Your task to perform on an android device: Add "razer blackwidow" to the cart on newegg.com Image 0: 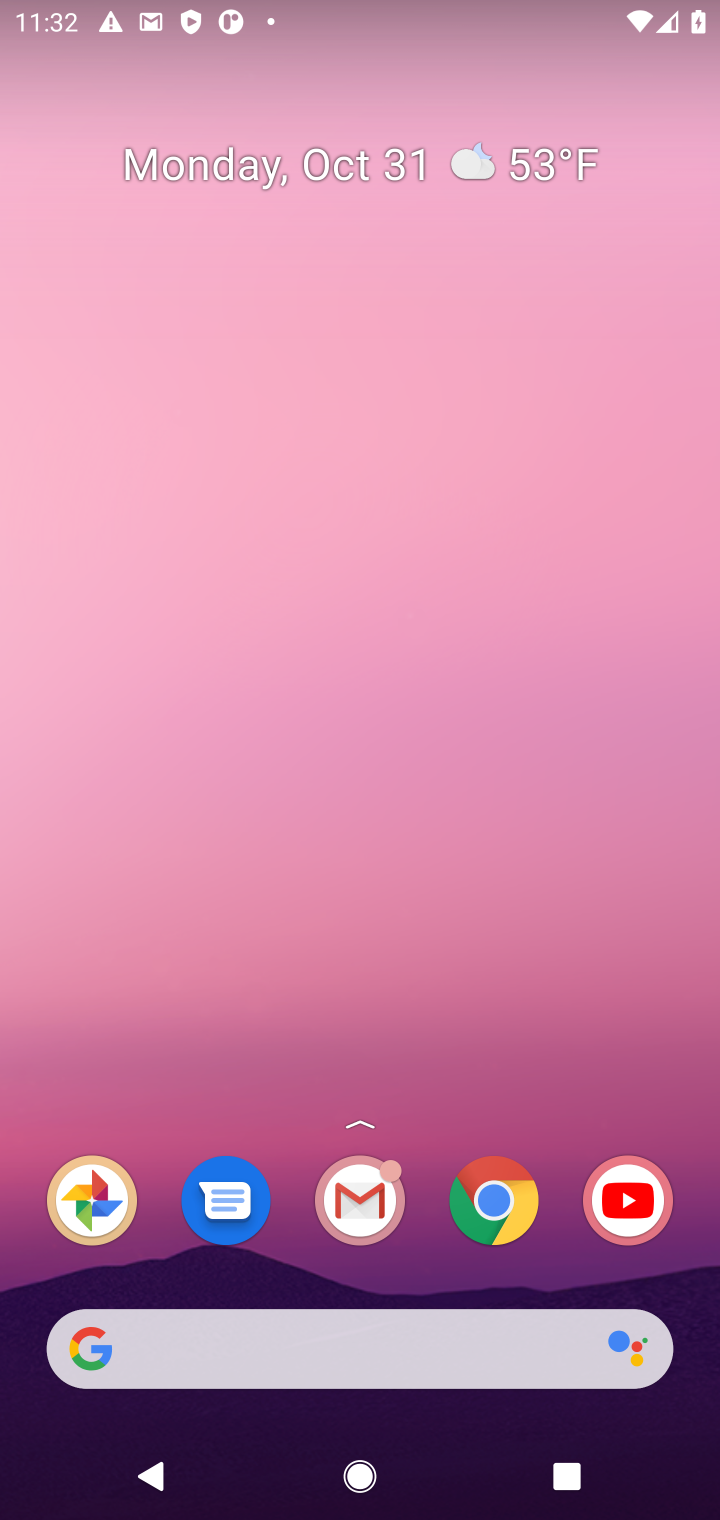
Step 0: click (505, 1205)
Your task to perform on an android device: Add "razer blackwidow" to the cart on newegg.com Image 1: 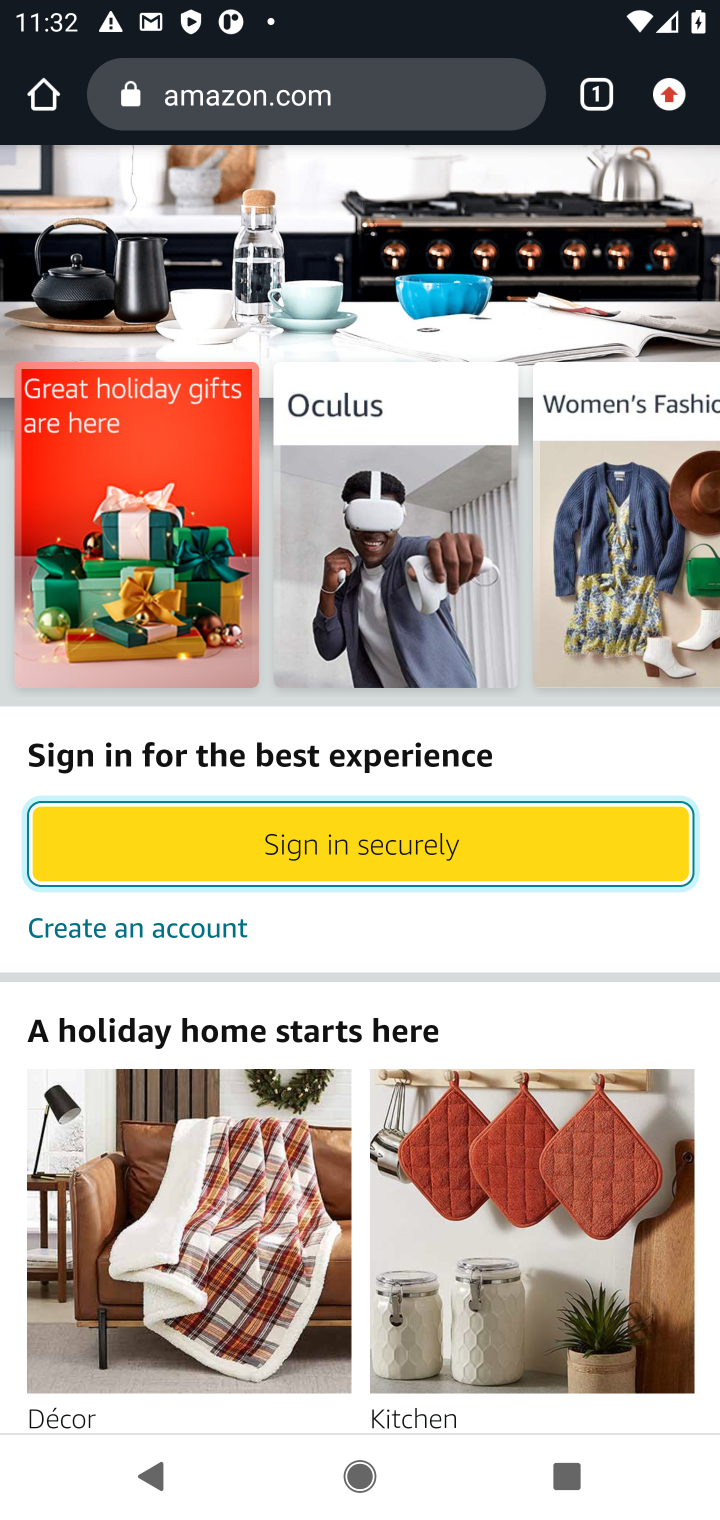
Step 1: click (274, 93)
Your task to perform on an android device: Add "razer blackwidow" to the cart on newegg.com Image 2: 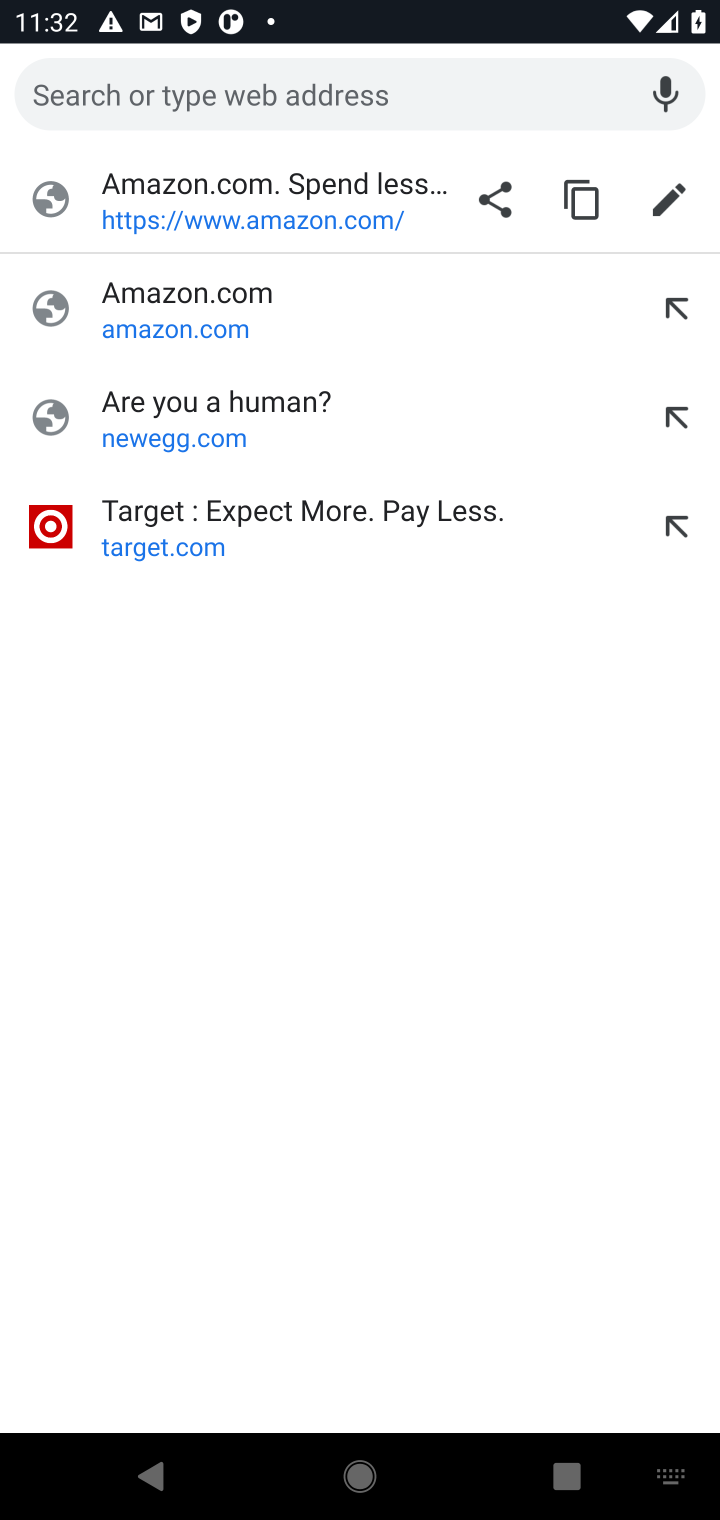
Step 2: type "newegg.com"
Your task to perform on an android device: Add "razer blackwidow" to the cart on newegg.com Image 3: 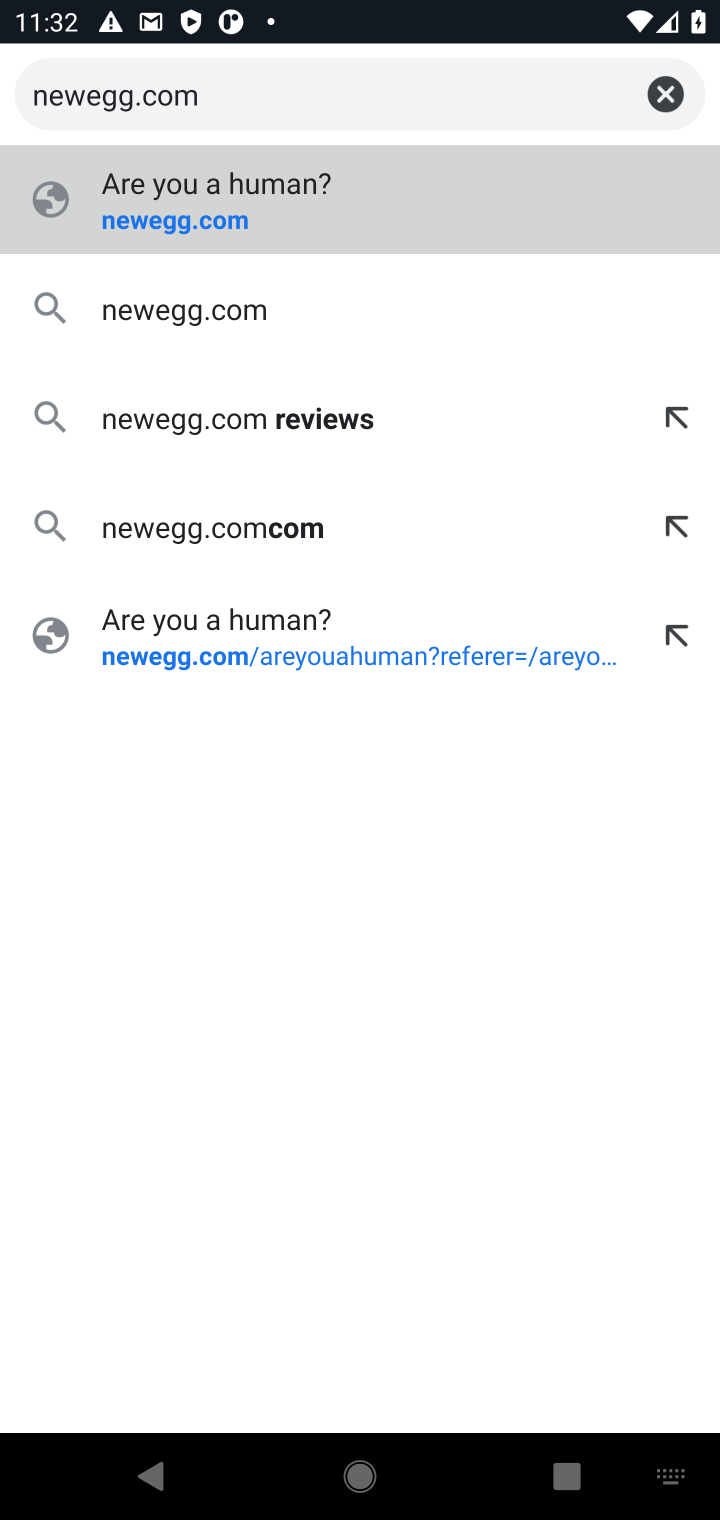
Step 3: click (303, 209)
Your task to perform on an android device: Add "razer blackwidow" to the cart on newegg.com Image 4: 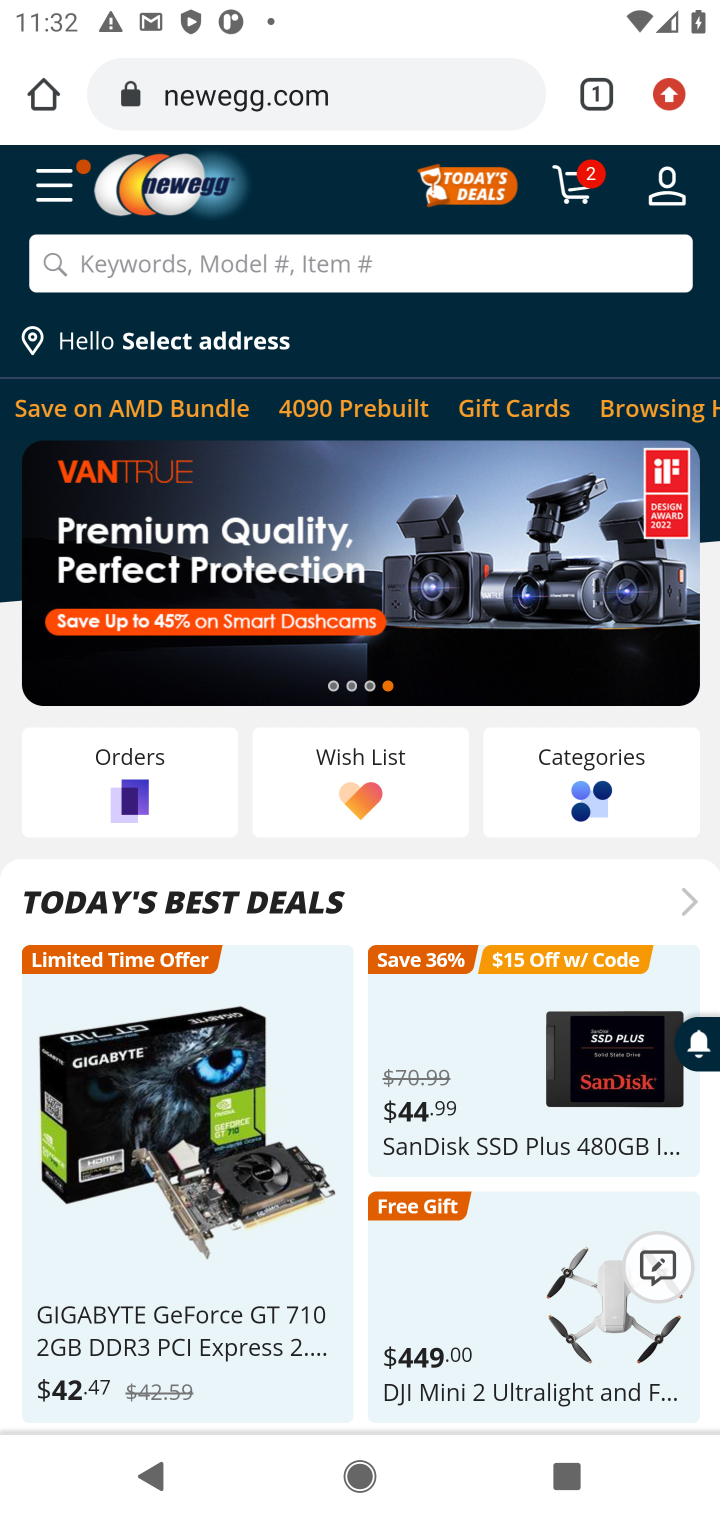
Step 4: click (438, 277)
Your task to perform on an android device: Add "razer blackwidow" to the cart on newegg.com Image 5: 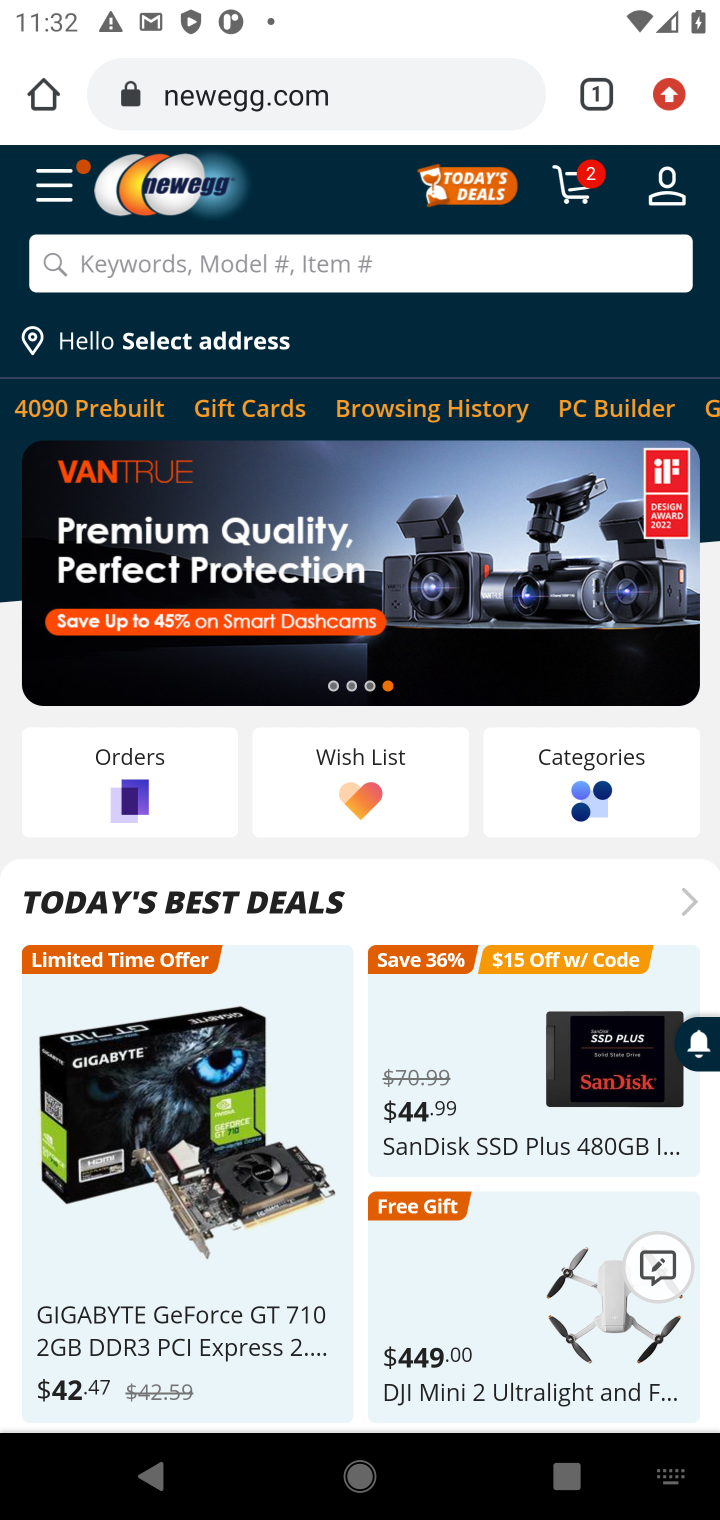
Step 5: click (361, 260)
Your task to perform on an android device: Add "razer blackwidow" to the cart on newegg.com Image 6: 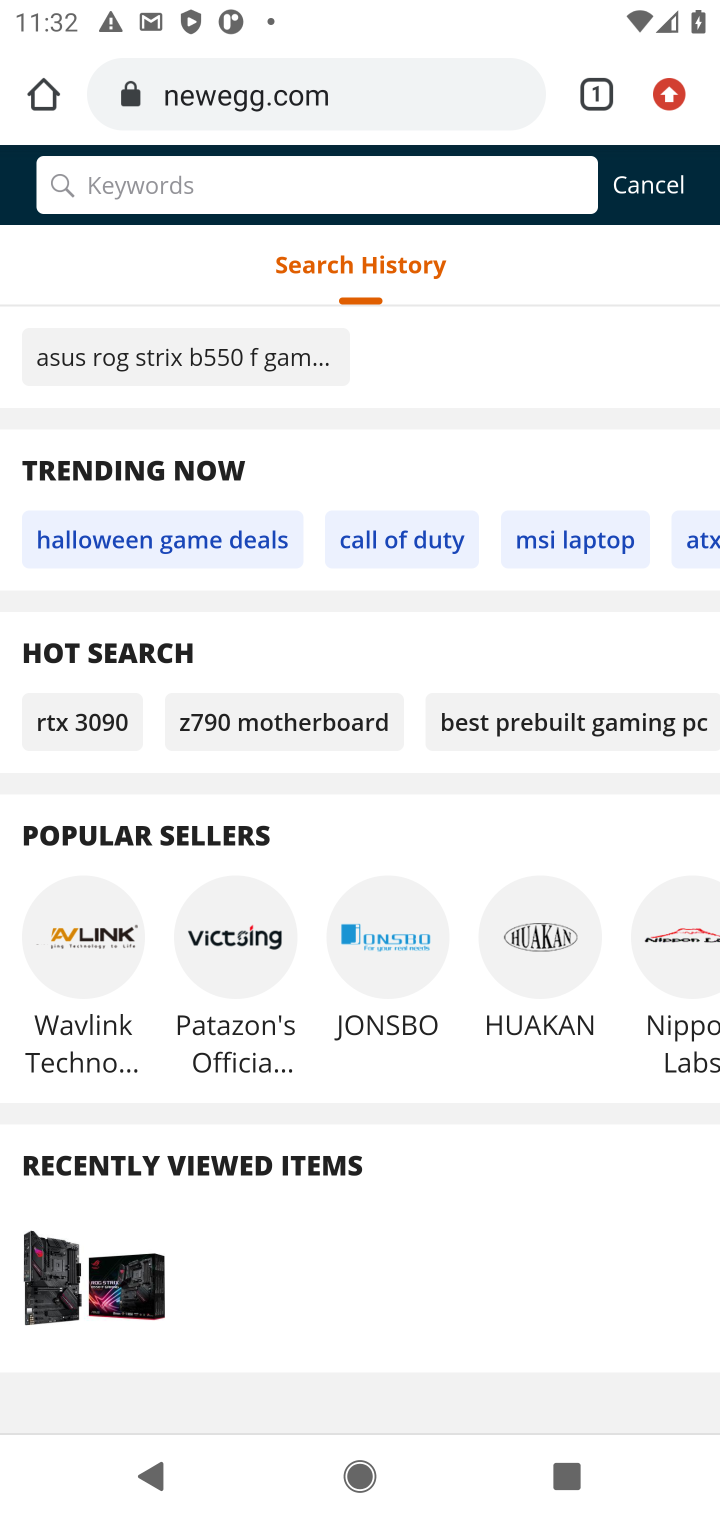
Step 6: type "razer blackwidow"
Your task to perform on an android device: Add "razer blackwidow" to the cart on newegg.com Image 7: 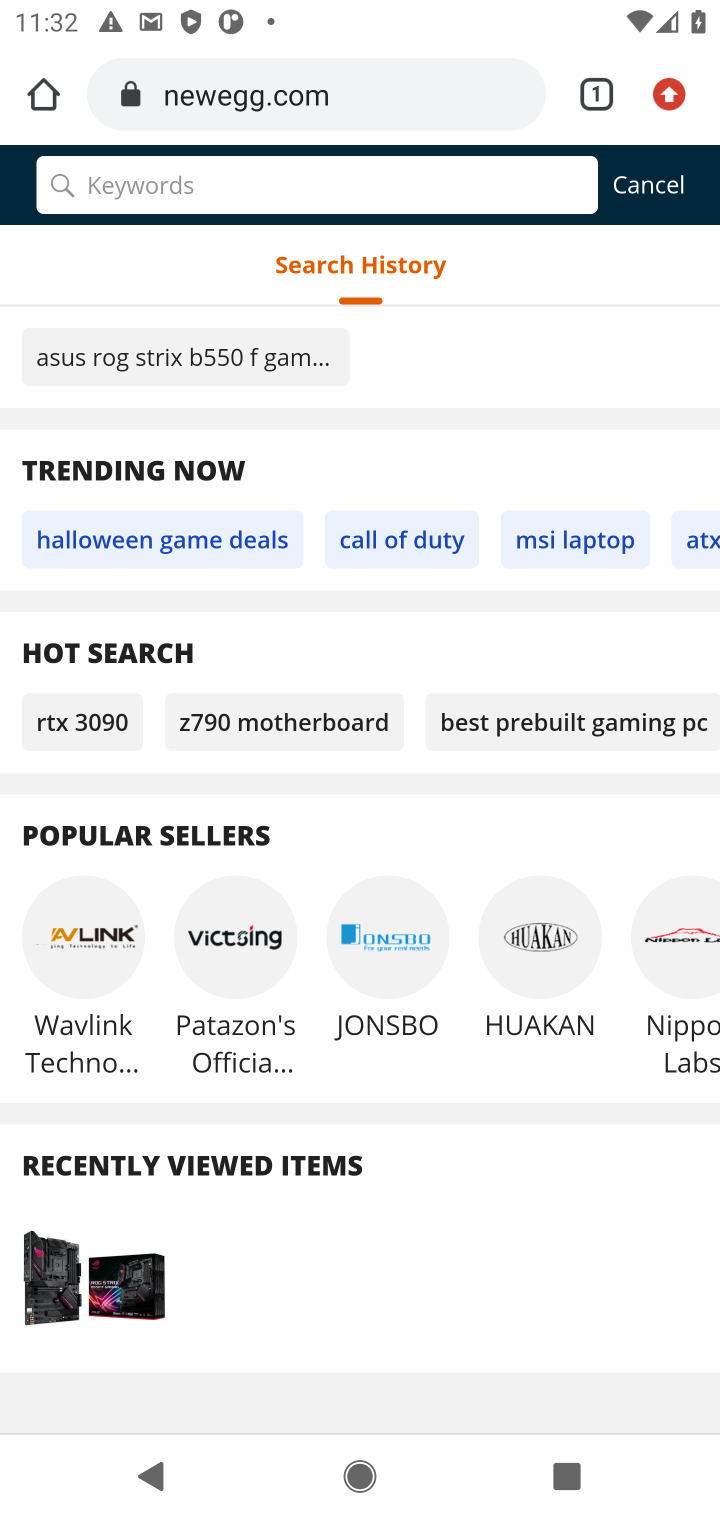
Step 7: type ""
Your task to perform on an android device: Add "razer blackwidow" to the cart on newegg.com Image 8: 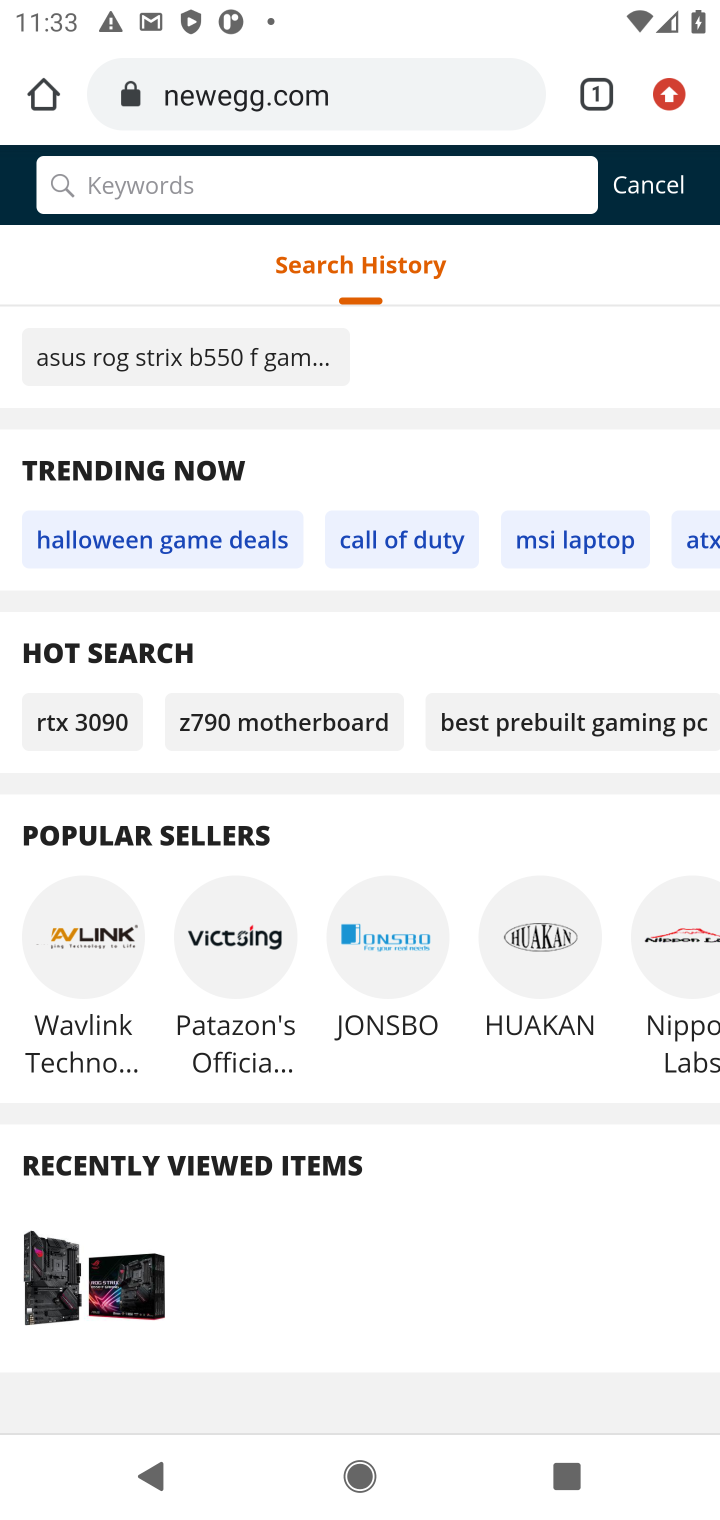
Step 8: drag from (237, 1328) to (441, 398)
Your task to perform on an android device: Add "razer blackwidow" to the cart on newegg.com Image 9: 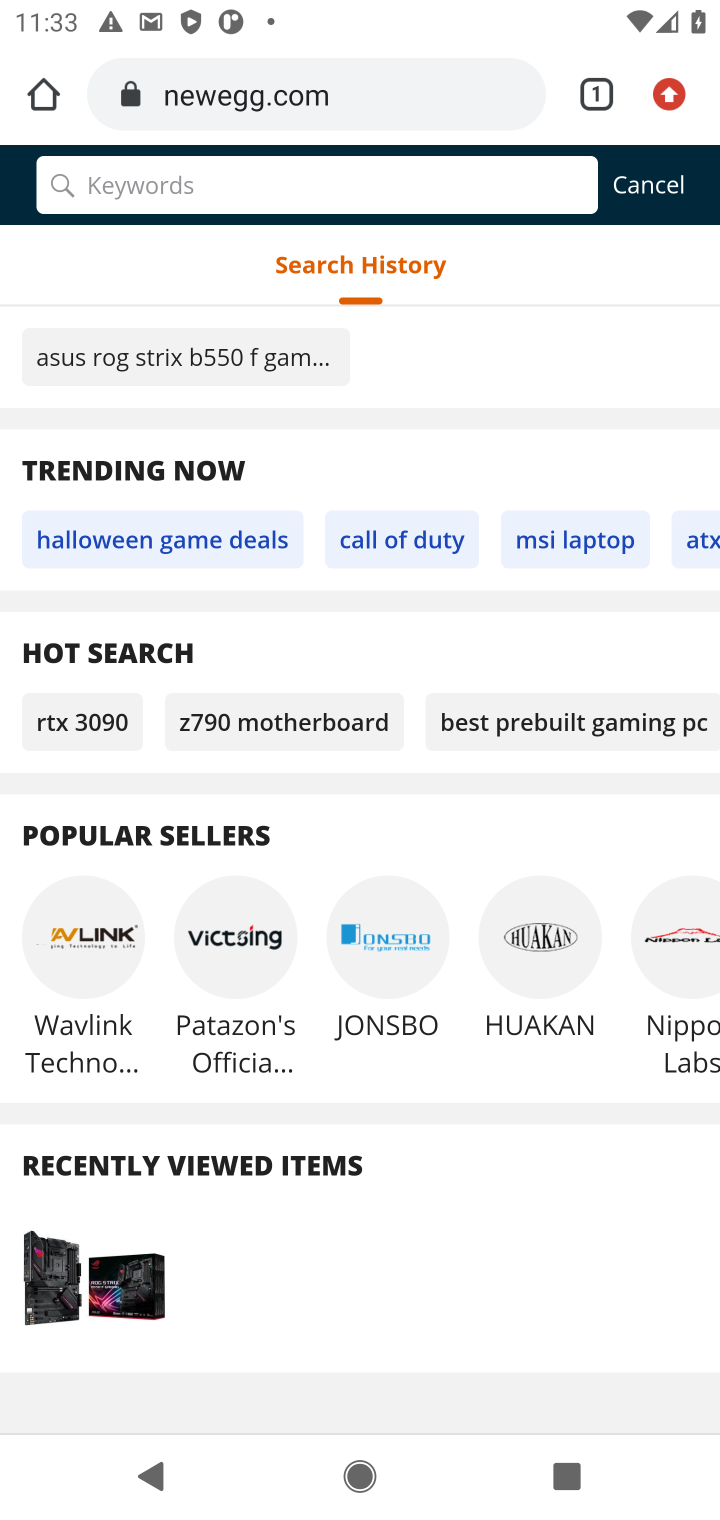
Step 9: drag from (281, 1101) to (330, 424)
Your task to perform on an android device: Add "razer blackwidow" to the cart on newegg.com Image 10: 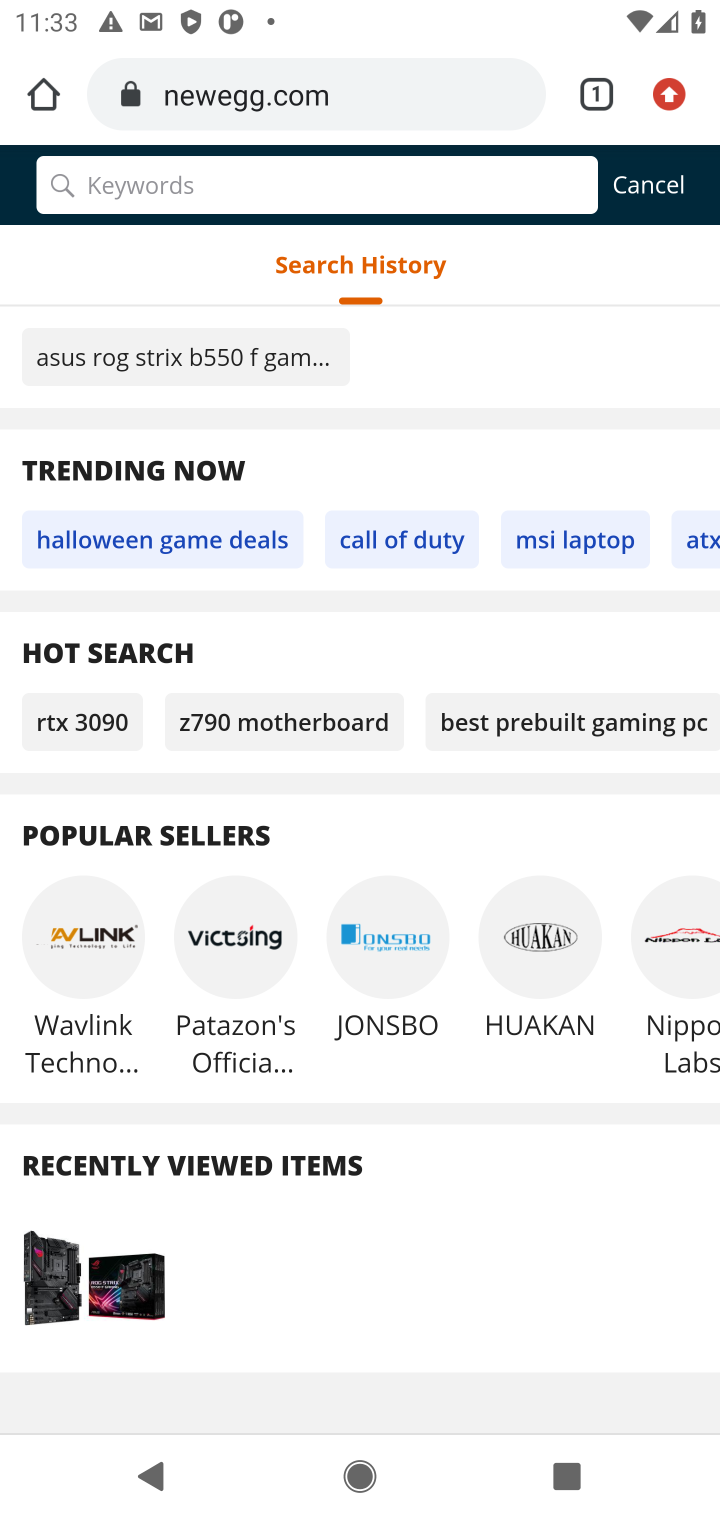
Step 10: press enter
Your task to perform on an android device: Add "razer blackwidow" to the cart on newegg.com Image 11: 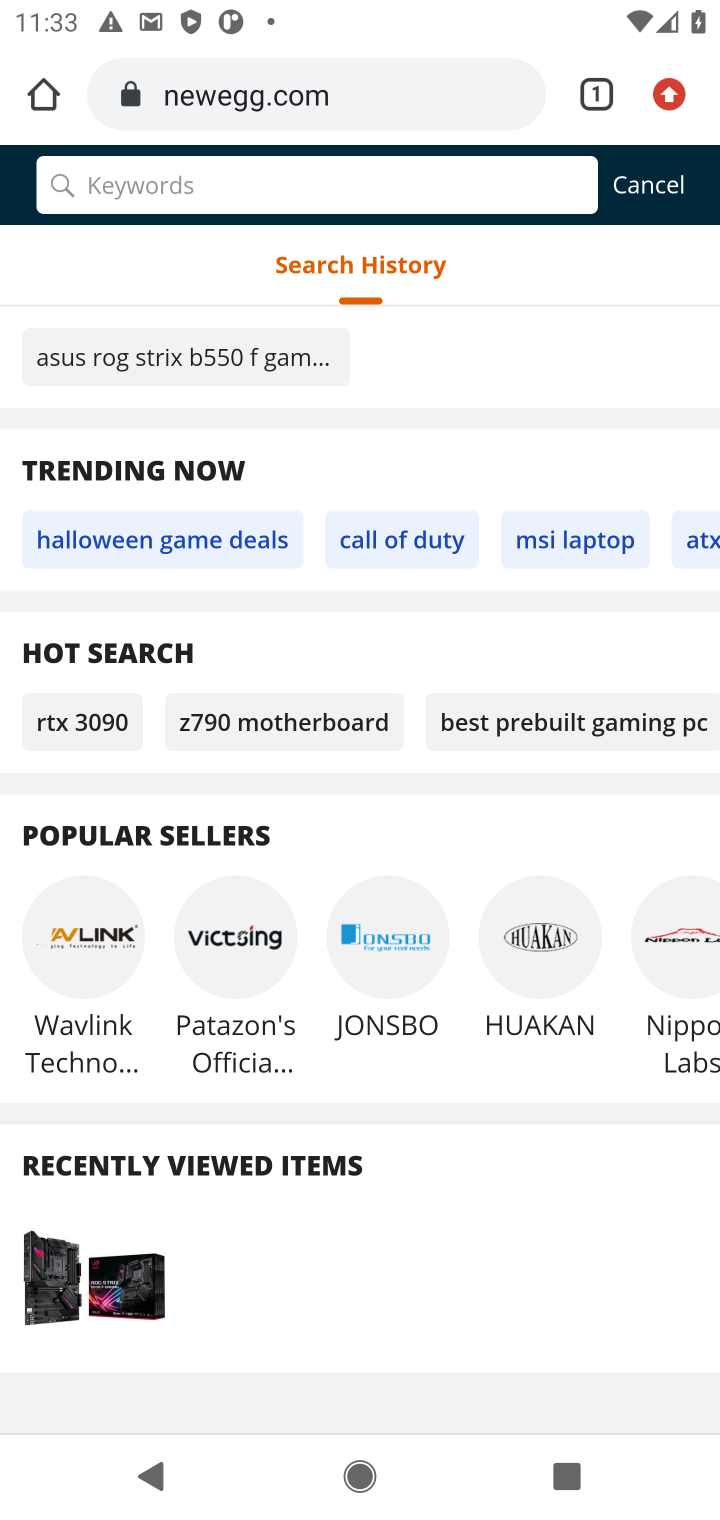
Step 11: drag from (356, 895) to (454, 1151)
Your task to perform on an android device: Add "razer blackwidow" to the cart on newegg.com Image 12: 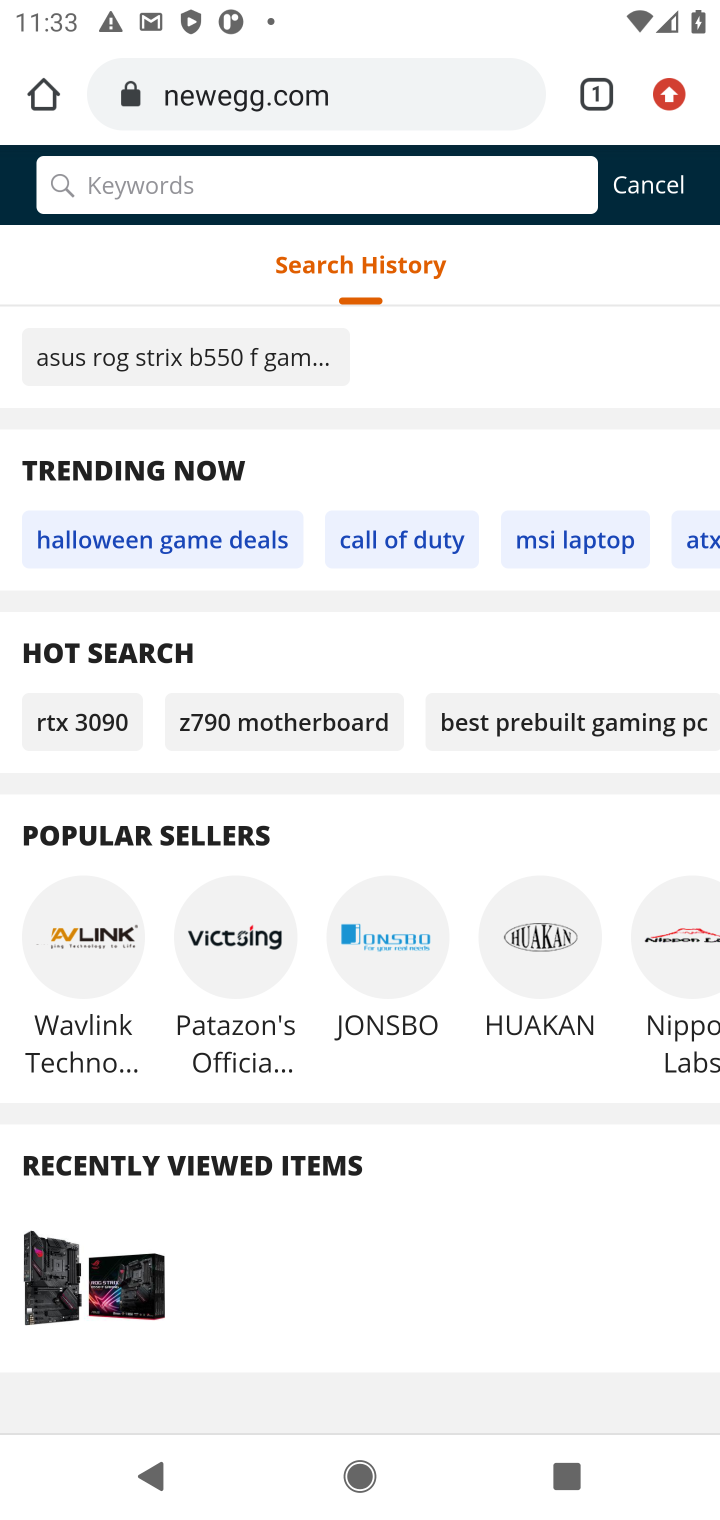
Step 12: drag from (338, 462) to (372, 1017)
Your task to perform on an android device: Add "razer blackwidow" to the cart on newegg.com Image 13: 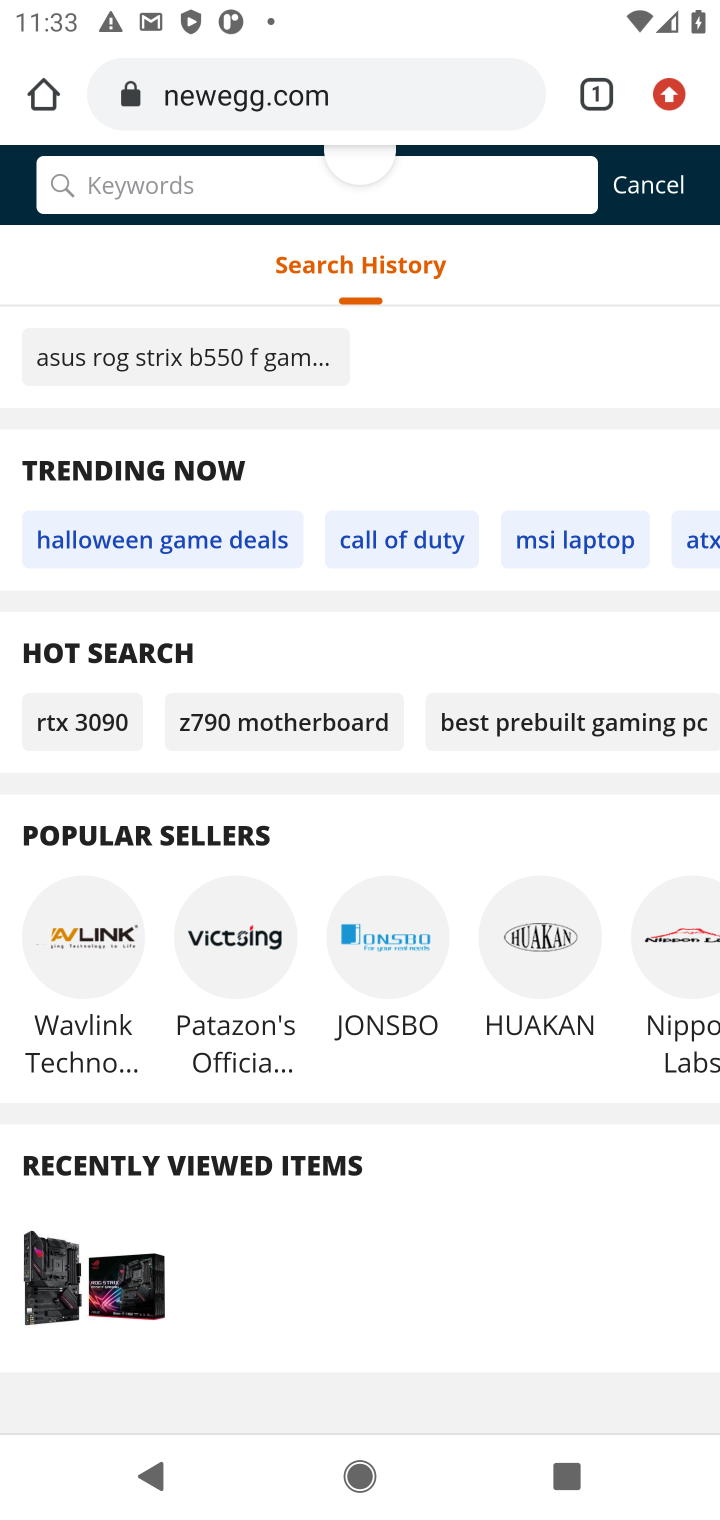
Step 13: drag from (341, 678) to (369, 1082)
Your task to perform on an android device: Add "razer blackwidow" to the cart on newegg.com Image 14: 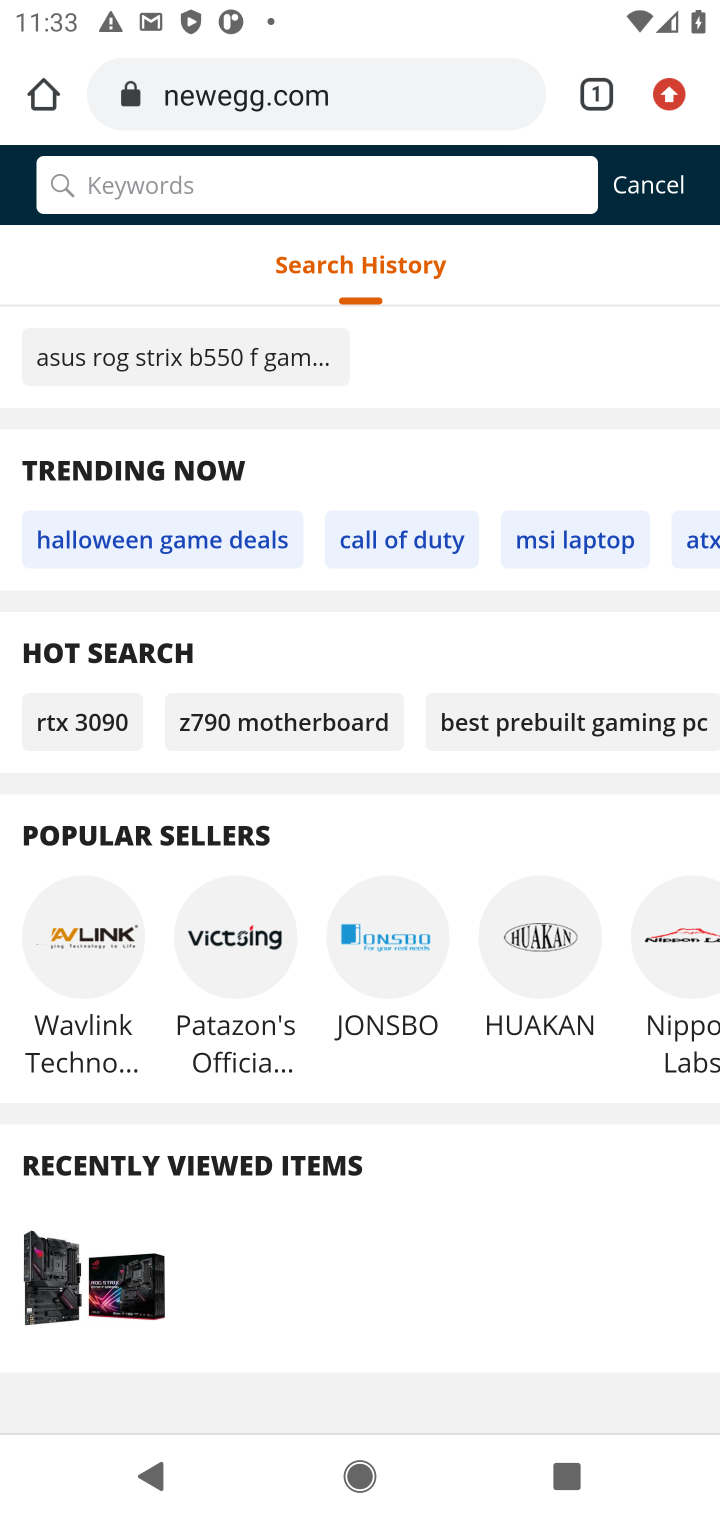
Step 14: drag from (368, 539) to (358, 956)
Your task to perform on an android device: Add "razer blackwidow" to the cart on newegg.com Image 15: 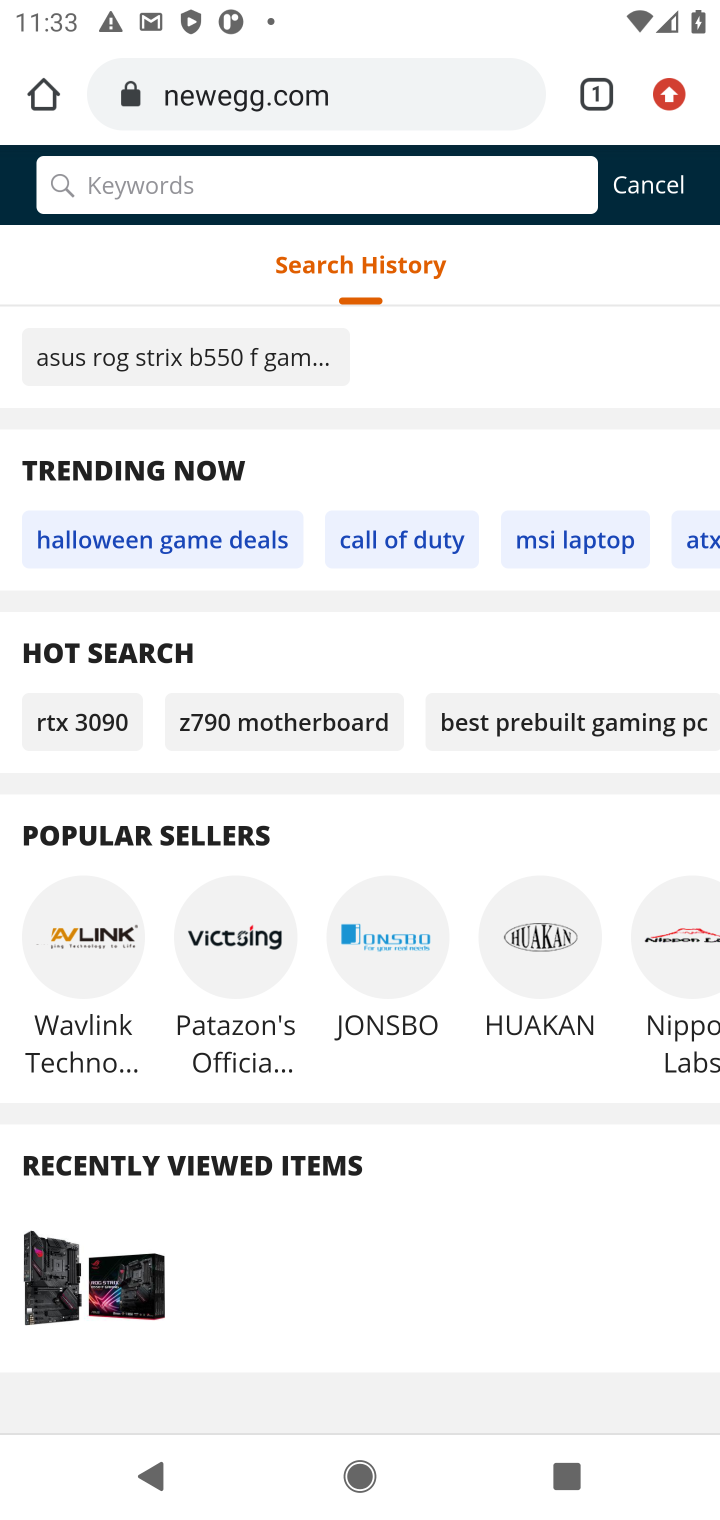
Step 15: press back button
Your task to perform on an android device: Add "razer blackwidow" to the cart on newegg.com Image 16: 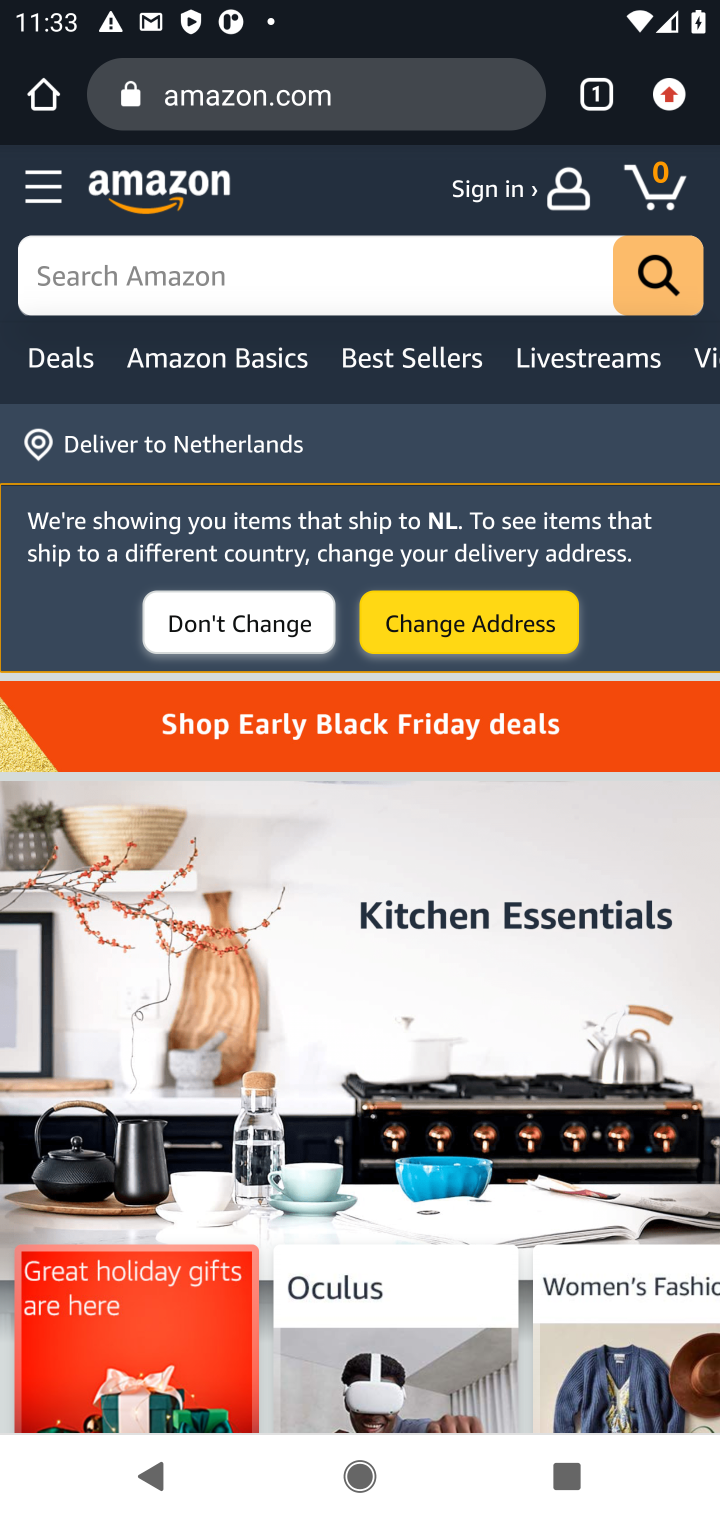
Step 16: click (407, 309)
Your task to perform on an android device: Add "razer blackwidow" to the cart on newegg.com Image 17: 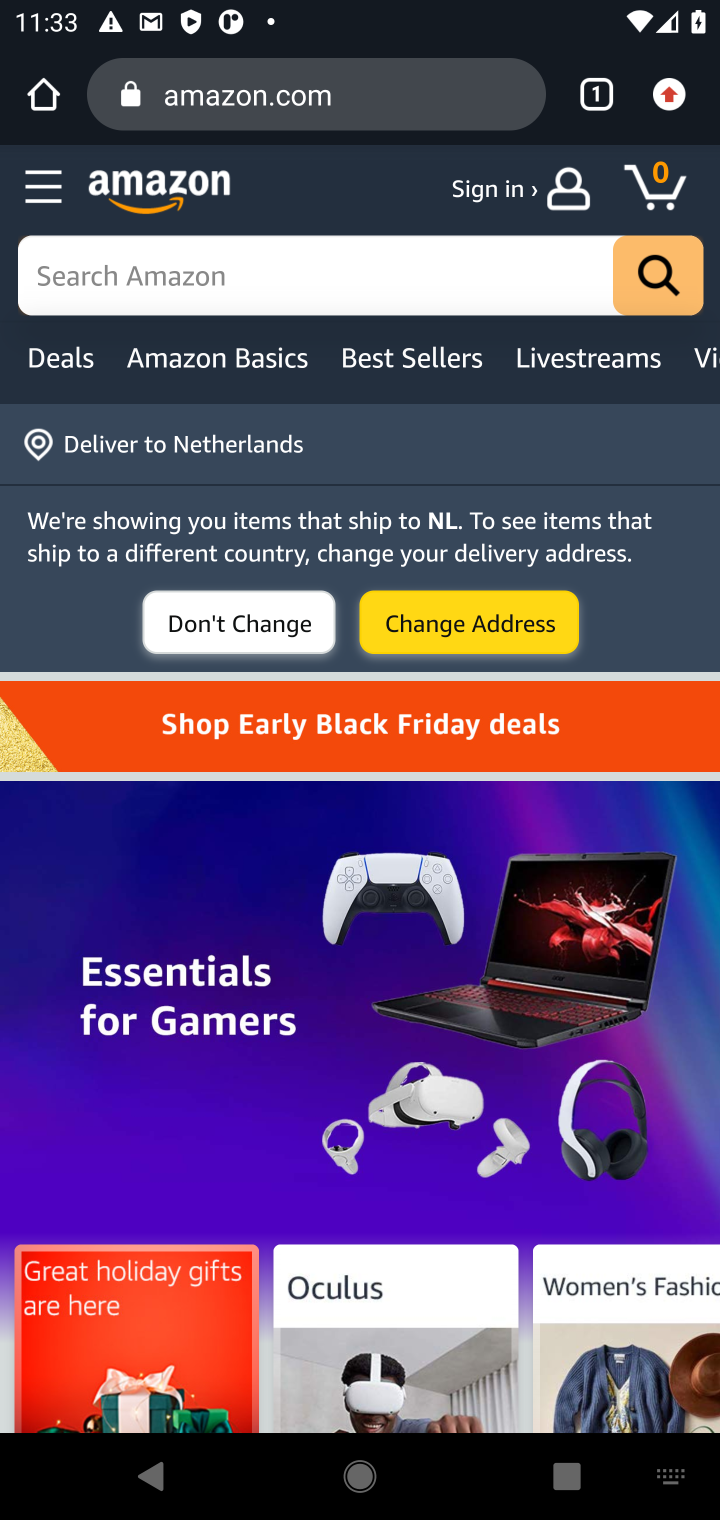
Step 17: click (304, 100)
Your task to perform on an android device: Add "razer blackwidow" to the cart on newegg.com Image 18: 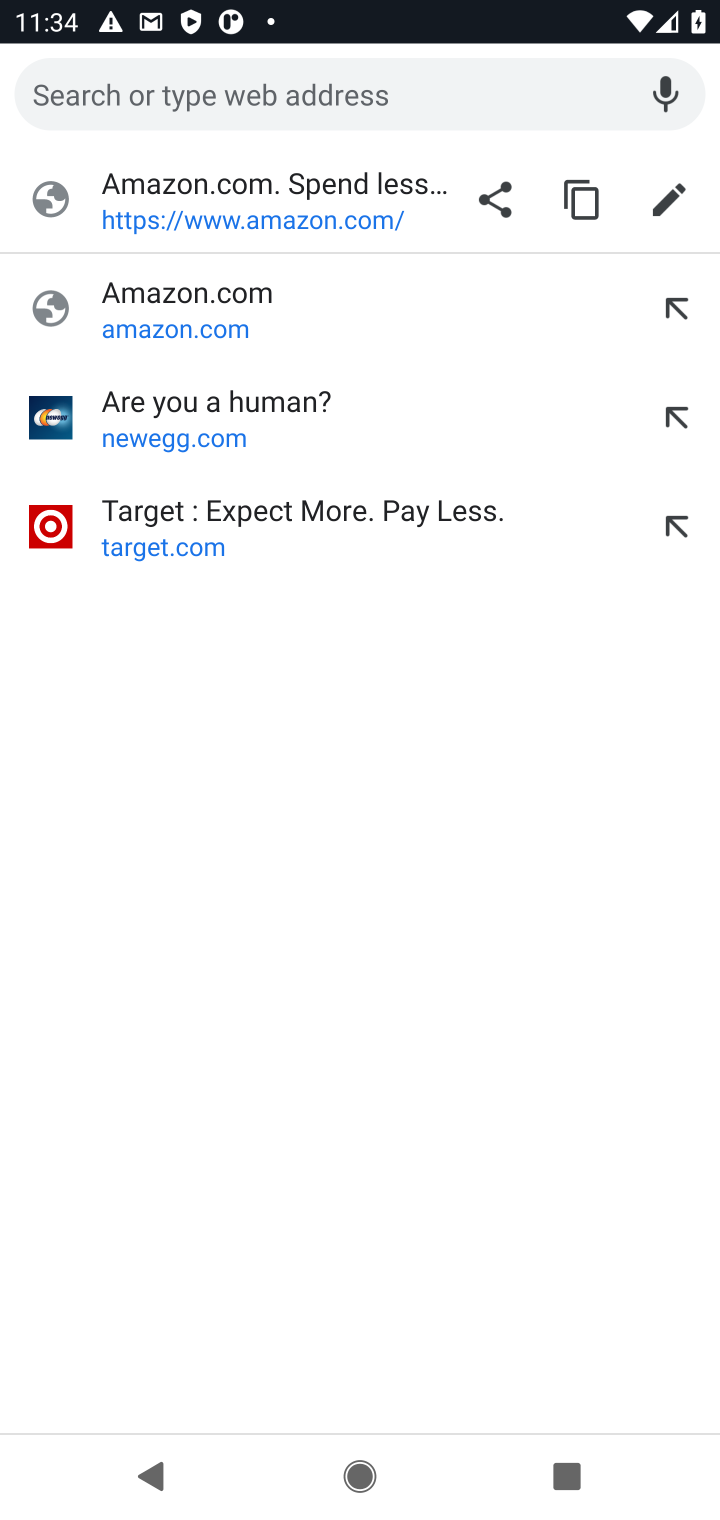
Step 18: type "newegg.com"
Your task to perform on an android device: Add "razer blackwidow" to the cart on newegg.com Image 19: 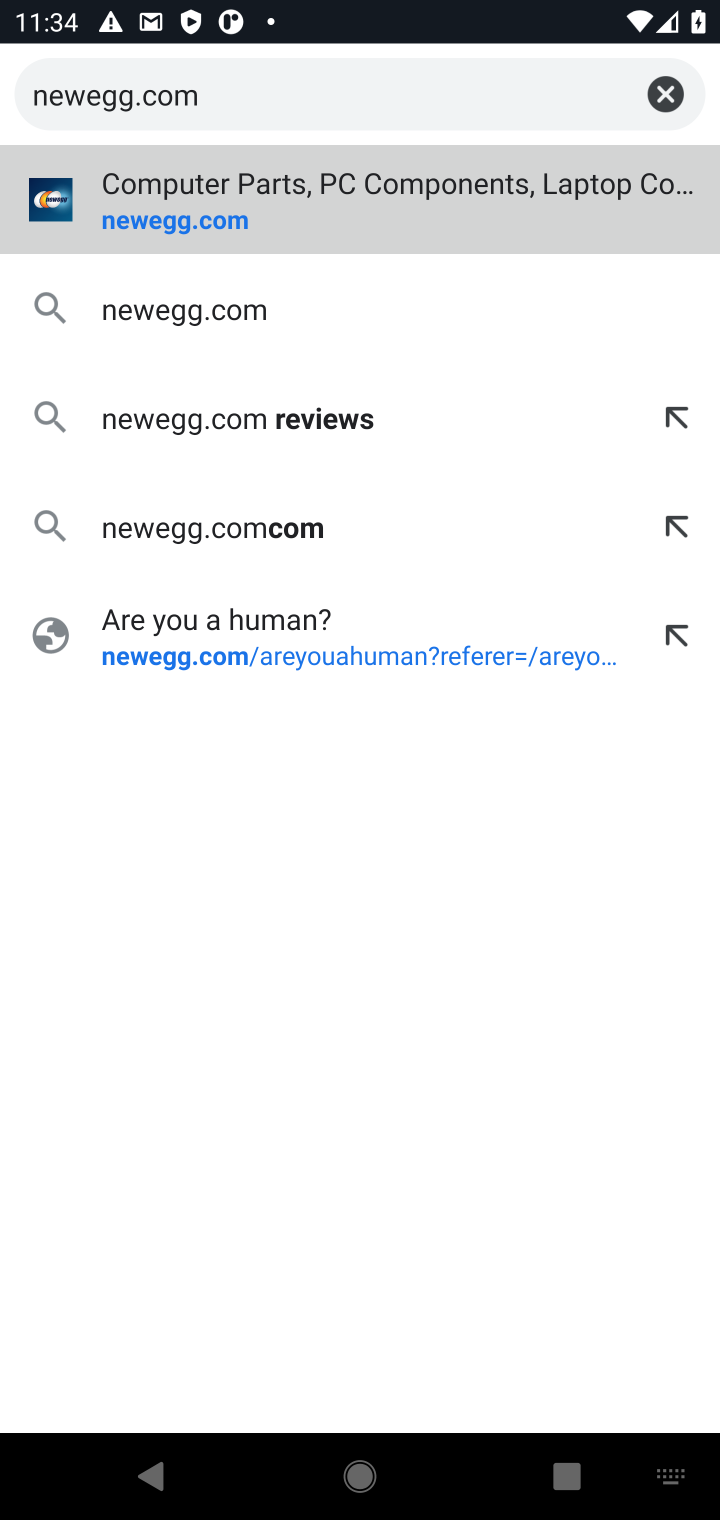
Step 19: click (298, 173)
Your task to perform on an android device: Add "razer blackwidow" to the cart on newegg.com Image 20: 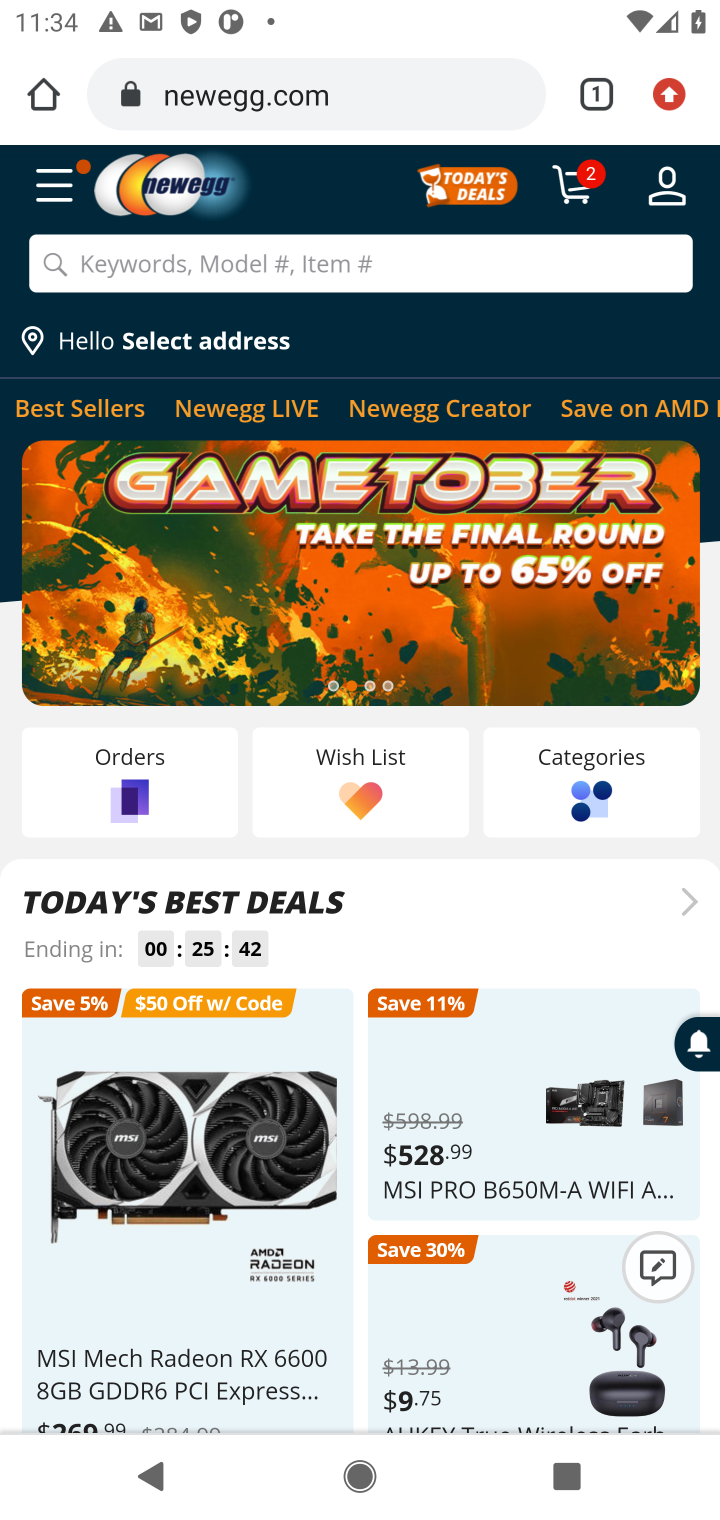
Step 20: click (253, 274)
Your task to perform on an android device: Add "razer blackwidow" to the cart on newegg.com Image 21: 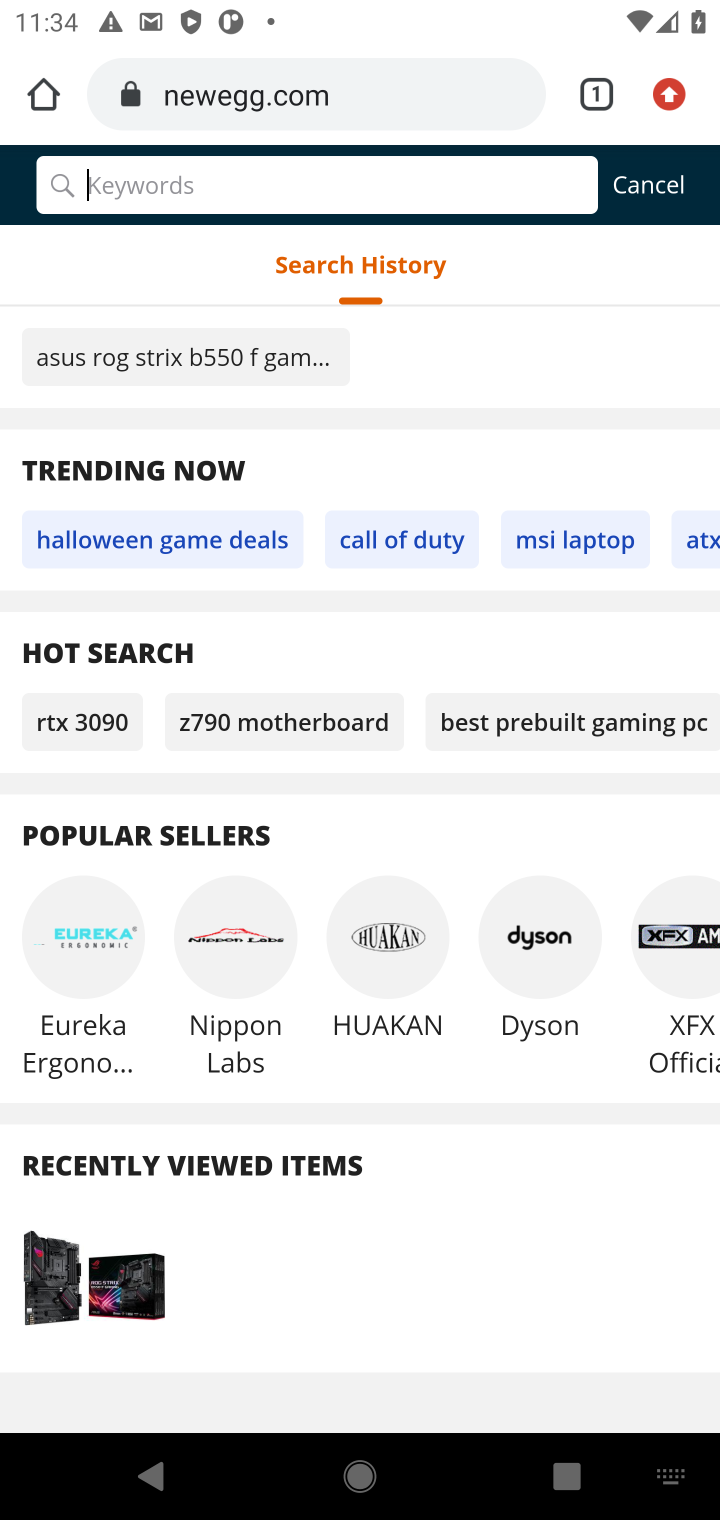
Step 21: type "razer blackwidow"
Your task to perform on an android device: Add "razer blackwidow" to the cart on newegg.com Image 22: 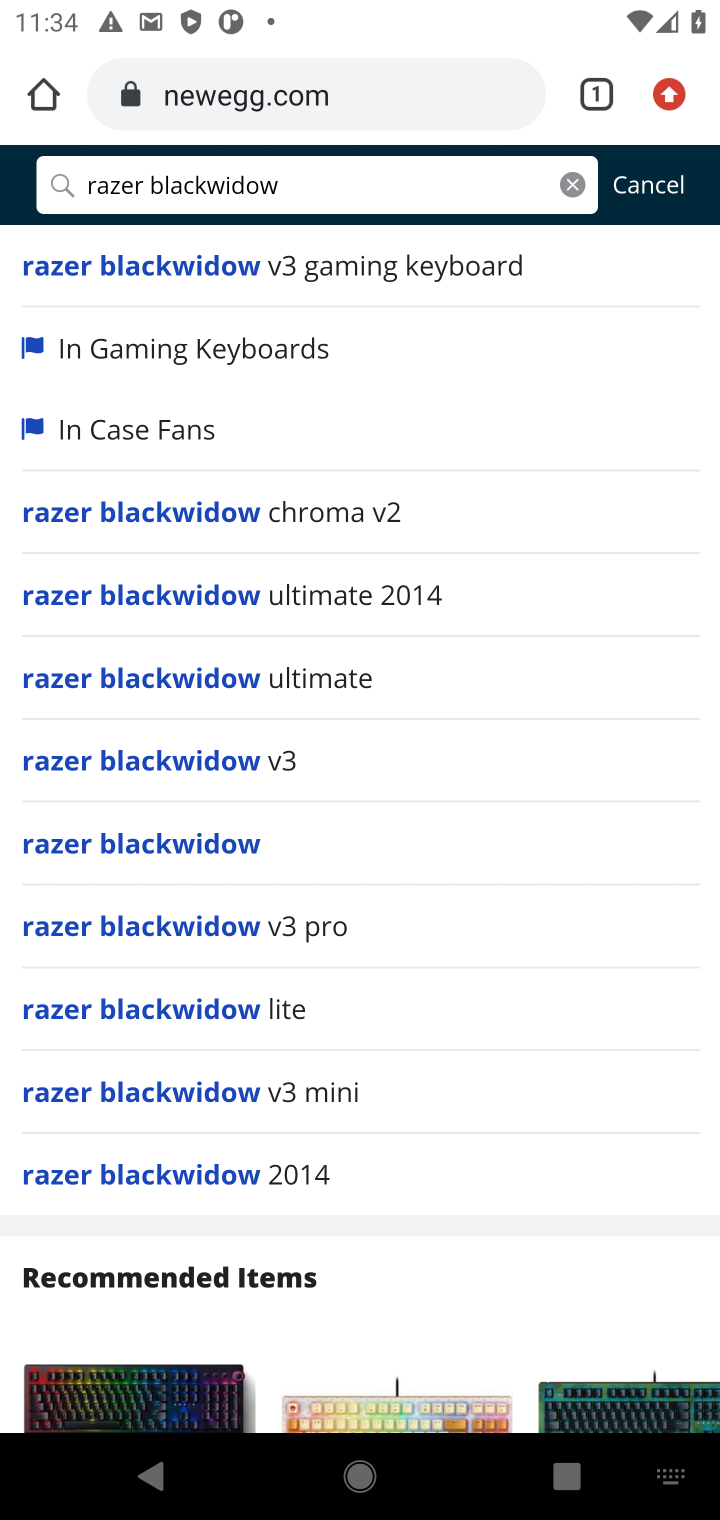
Step 22: click (398, 275)
Your task to perform on an android device: Add "razer blackwidow" to the cart on newegg.com Image 23: 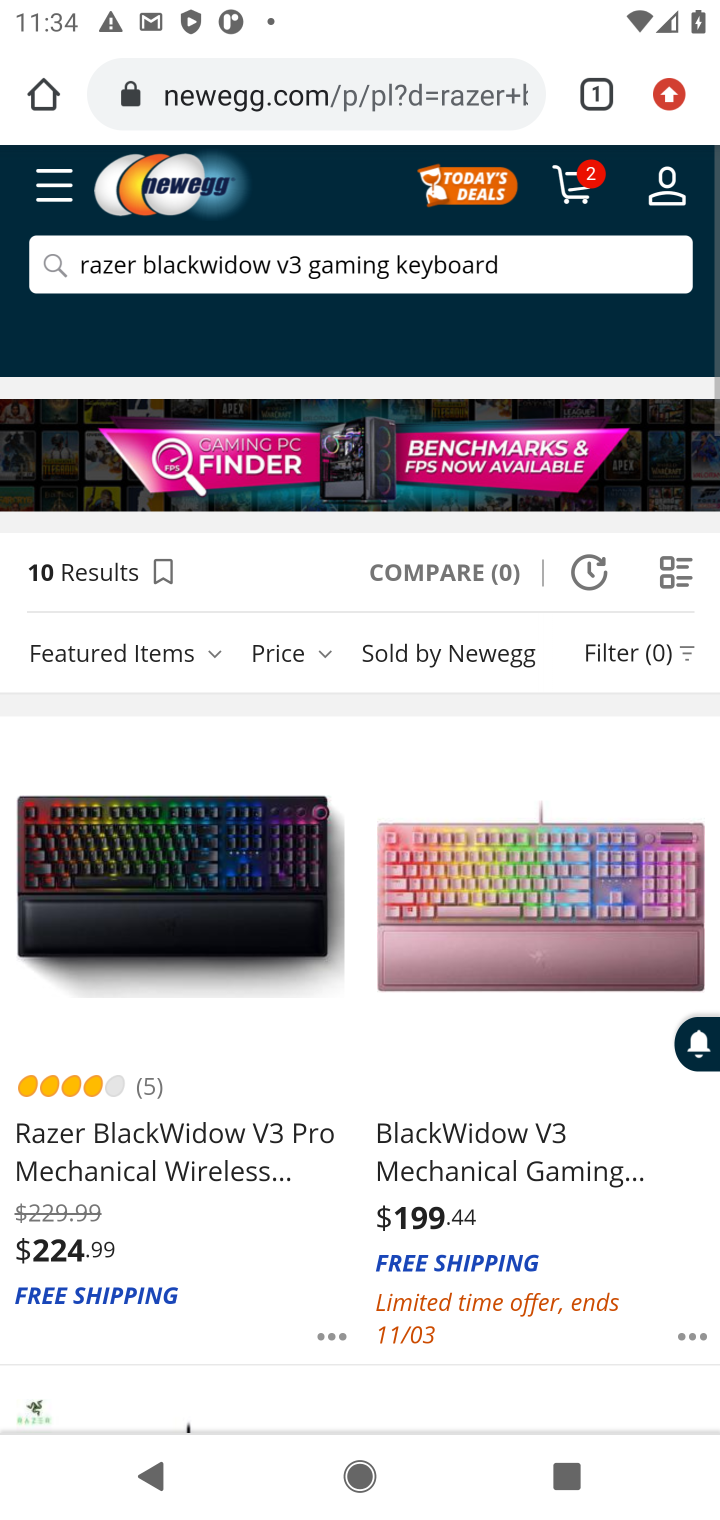
Step 23: click (116, 777)
Your task to perform on an android device: Add "razer blackwidow" to the cart on newegg.com Image 24: 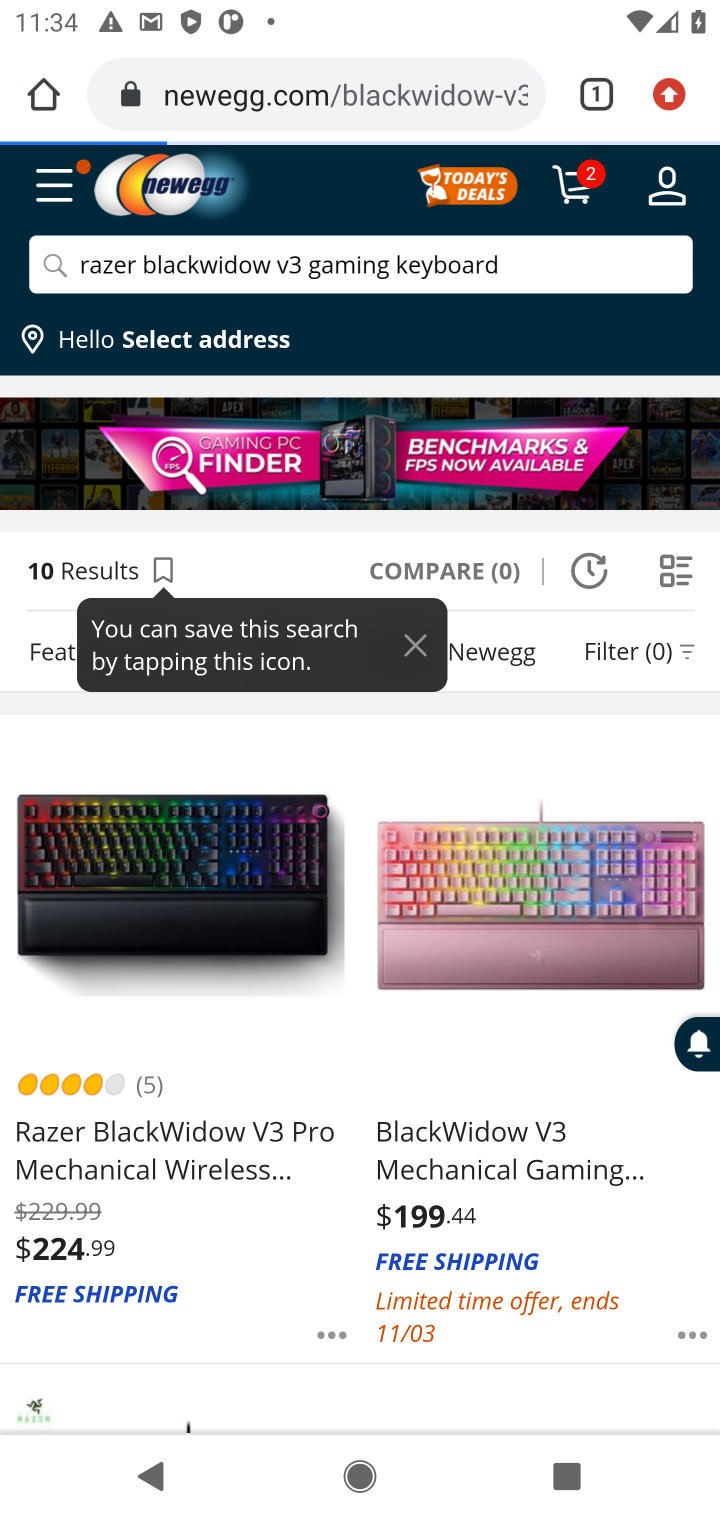
Step 24: click (134, 845)
Your task to perform on an android device: Add "razer blackwidow" to the cart on newegg.com Image 25: 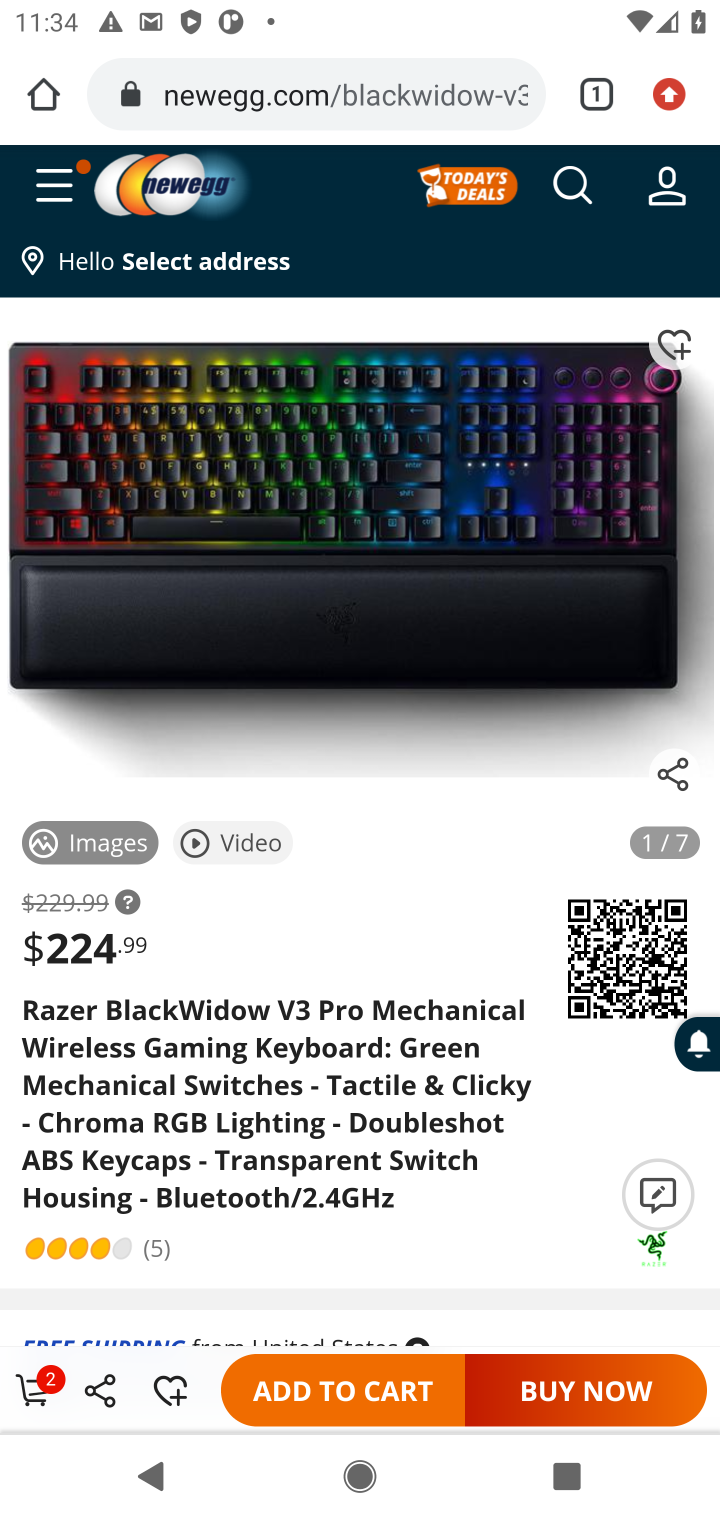
Step 25: click (321, 1370)
Your task to perform on an android device: Add "razer blackwidow" to the cart on newegg.com Image 26: 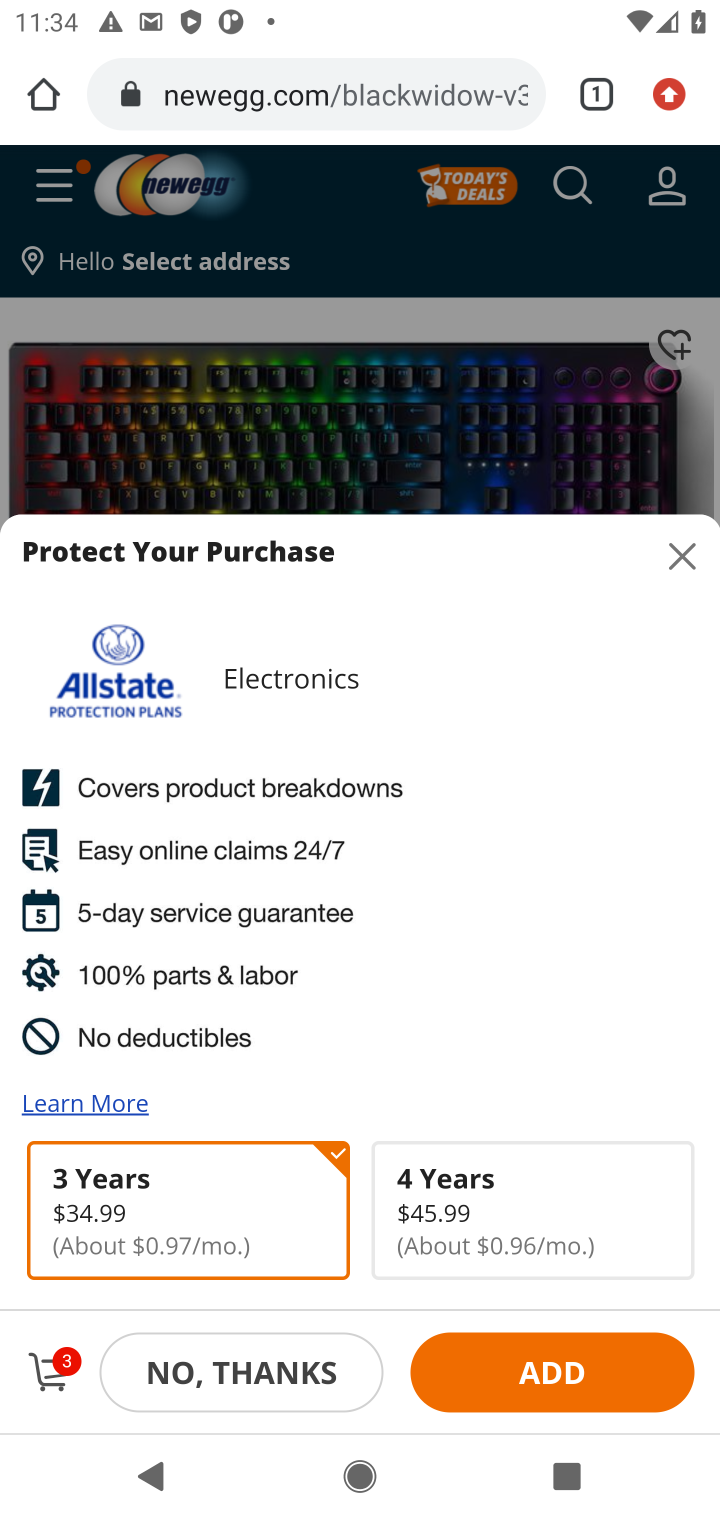
Step 26: click (300, 1386)
Your task to perform on an android device: Add "razer blackwidow" to the cart on newegg.com Image 27: 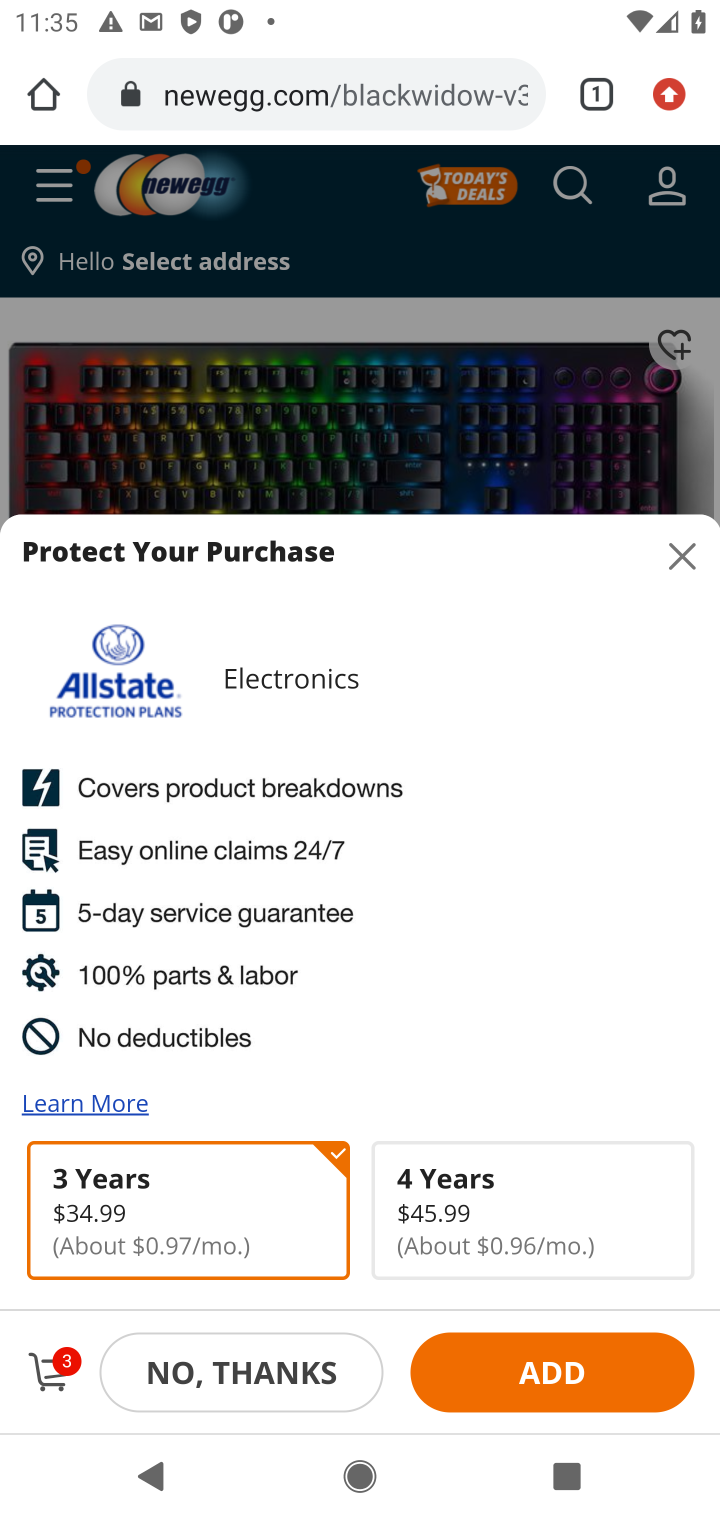
Step 27: click (48, 1371)
Your task to perform on an android device: Add "razer blackwidow" to the cart on newegg.com Image 28: 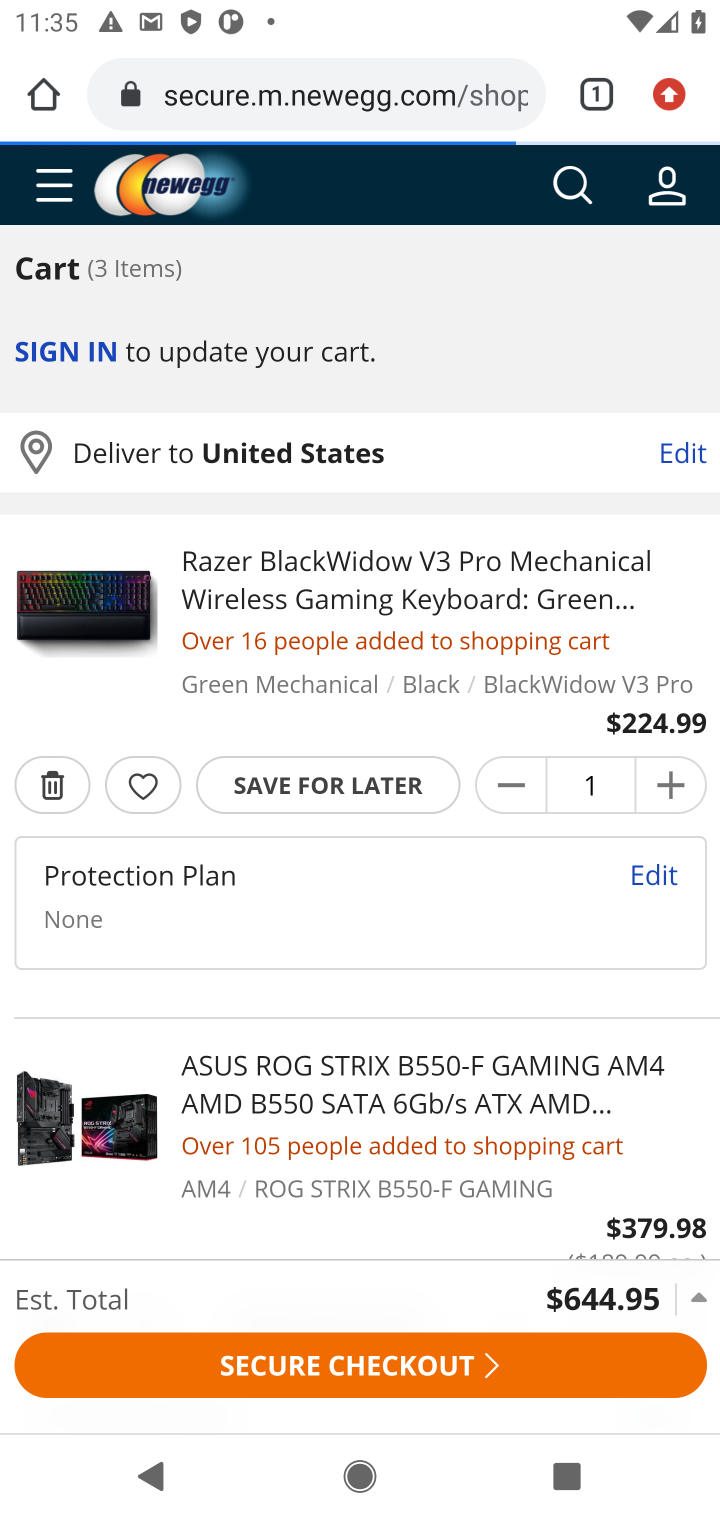
Step 28: task complete